Your task to perform on an android device: Go to notification settings Image 0: 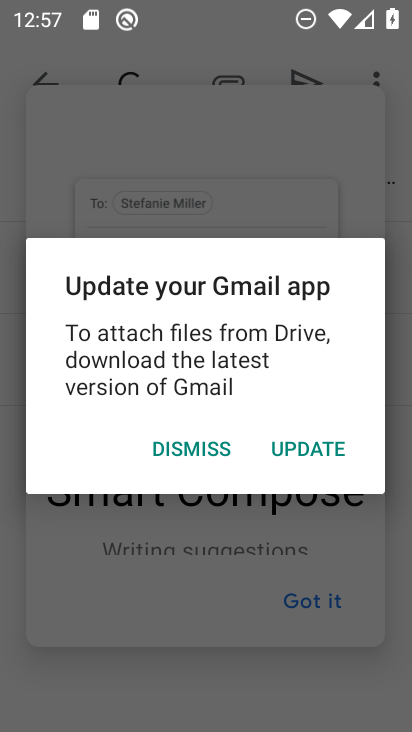
Step 0: press home button
Your task to perform on an android device: Go to notification settings Image 1: 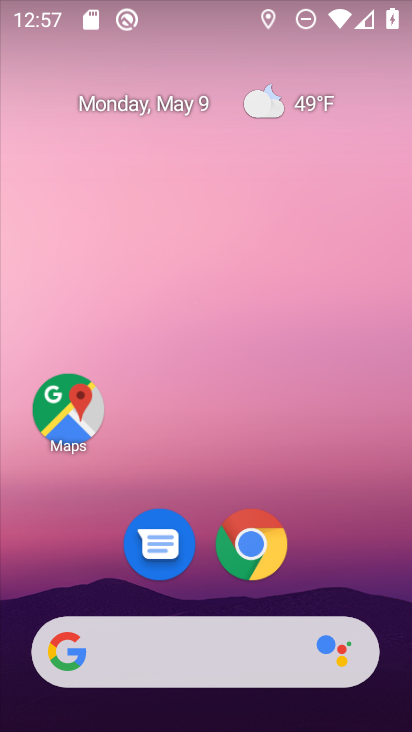
Step 1: drag from (265, 546) to (350, 29)
Your task to perform on an android device: Go to notification settings Image 2: 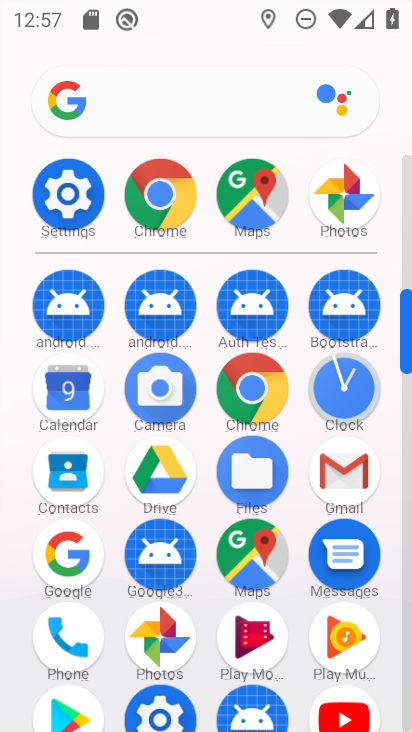
Step 2: click (66, 208)
Your task to perform on an android device: Go to notification settings Image 3: 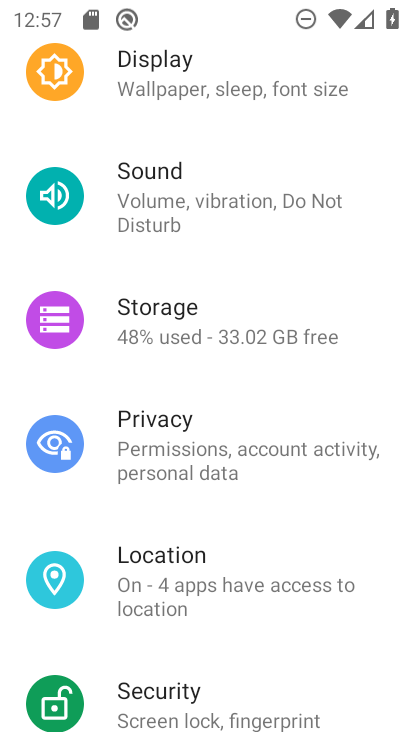
Step 3: drag from (273, 194) to (226, 437)
Your task to perform on an android device: Go to notification settings Image 4: 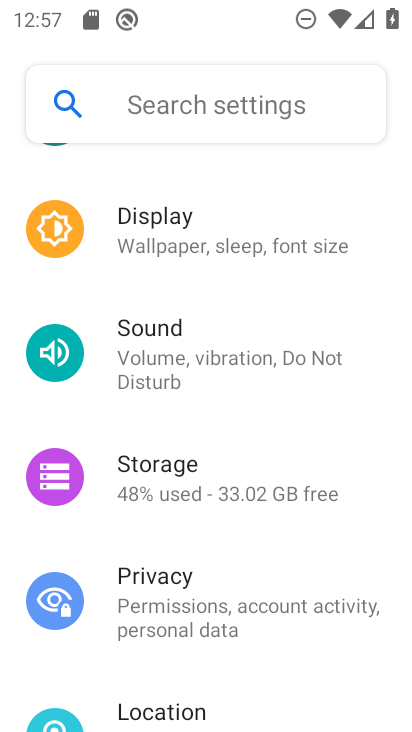
Step 4: drag from (277, 305) to (242, 568)
Your task to perform on an android device: Go to notification settings Image 5: 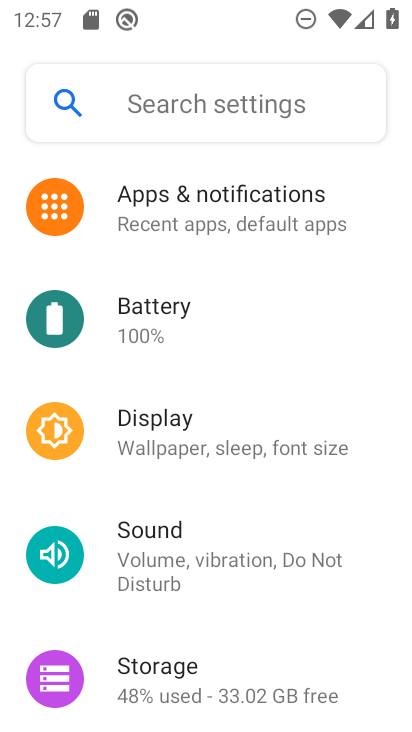
Step 5: click (254, 218)
Your task to perform on an android device: Go to notification settings Image 6: 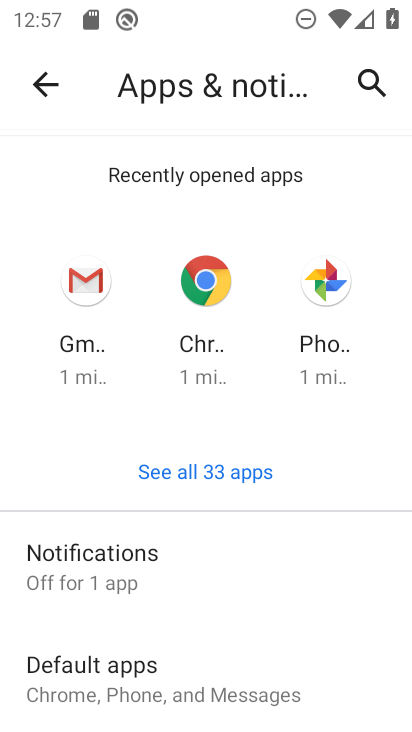
Step 6: drag from (291, 644) to (359, 269)
Your task to perform on an android device: Go to notification settings Image 7: 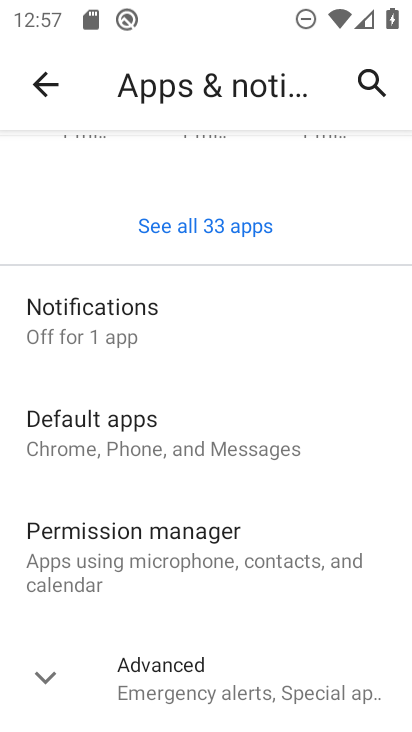
Step 7: click (102, 331)
Your task to perform on an android device: Go to notification settings Image 8: 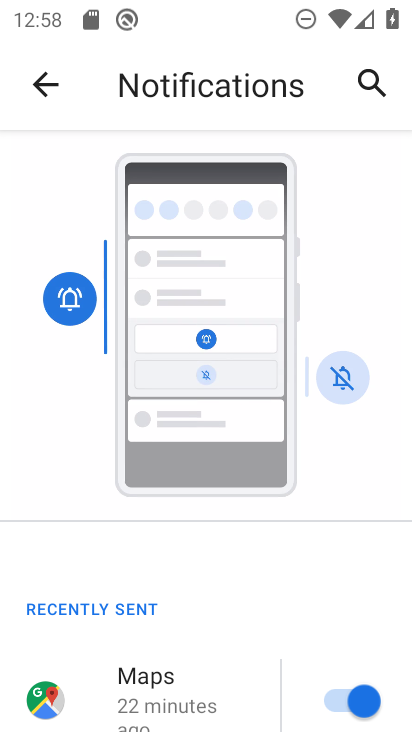
Step 8: task complete